Your task to perform on an android device: find which apps use the phone's location Image 0: 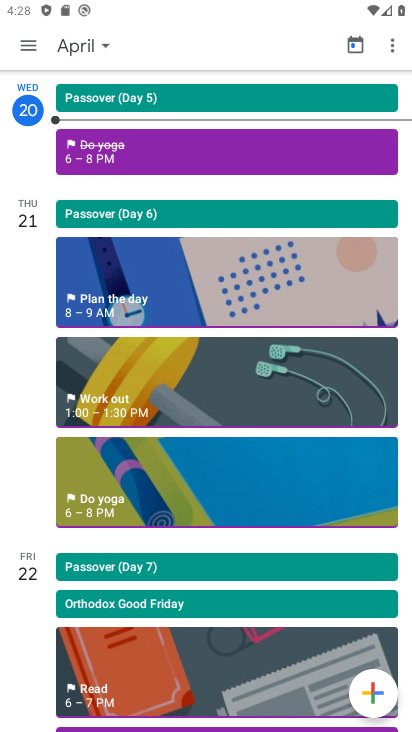
Step 0: press home button
Your task to perform on an android device: find which apps use the phone's location Image 1: 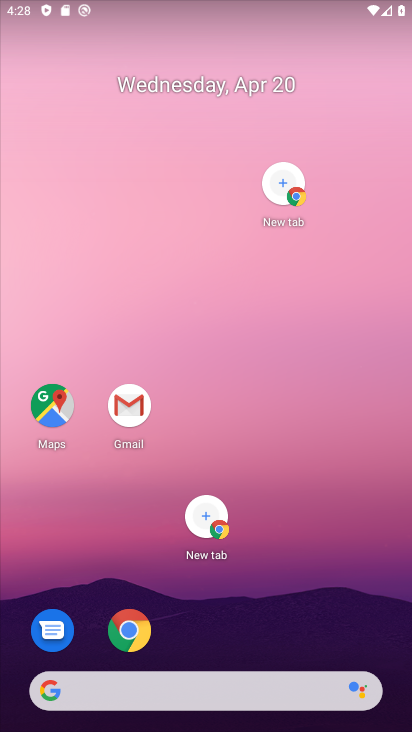
Step 1: drag from (271, 694) to (160, 257)
Your task to perform on an android device: find which apps use the phone's location Image 2: 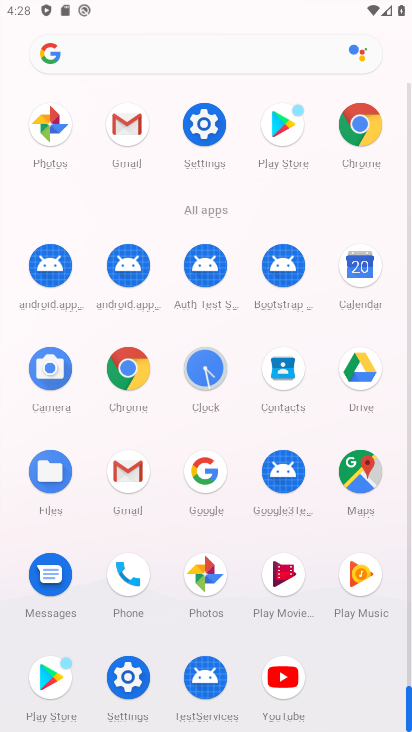
Step 2: click (196, 135)
Your task to perform on an android device: find which apps use the phone's location Image 3: 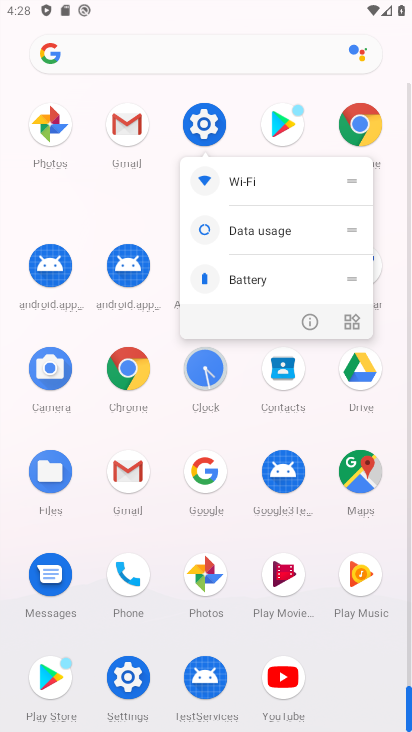
Step 3: click (209, 126)
Your task to perform on an android device: find which apps use the phone's location Image 4: 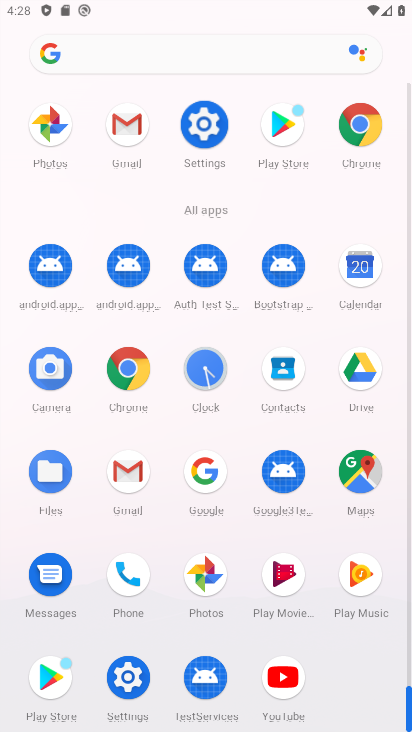
Step 4: click (209, 126)
Your task to perform on an android device: find which apps use the phone's location Image 5: 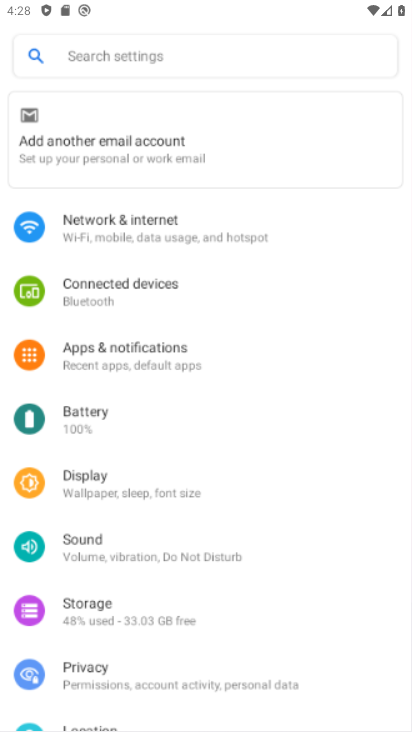
Step 5: click (208, 127)
Your task to perform on an android device: find which apps use the phone's location Image 6: 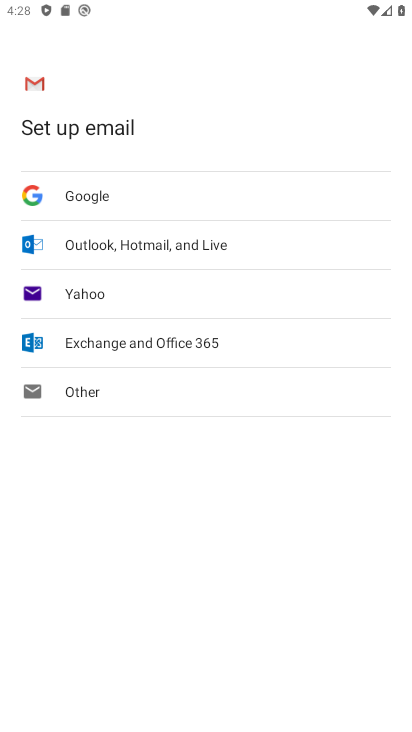
Step 6: press back button
Your task to perform on an android device: find which apps use the phone's location Image 7: 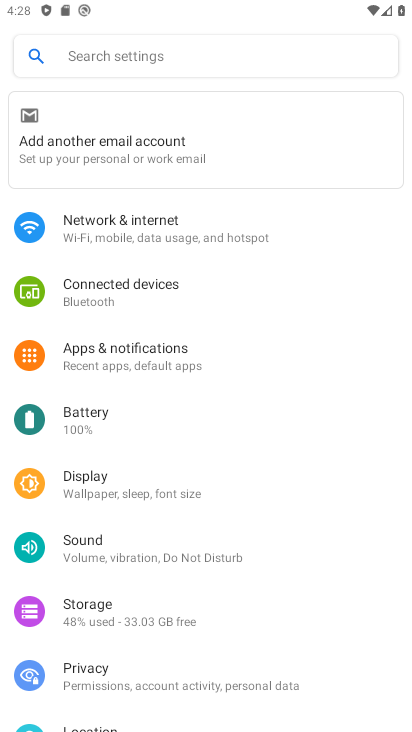
Step 7: drag from (189, 555) to (113, 220)
Your task to perform on an android device: find which apps use the phone's location Image 8: 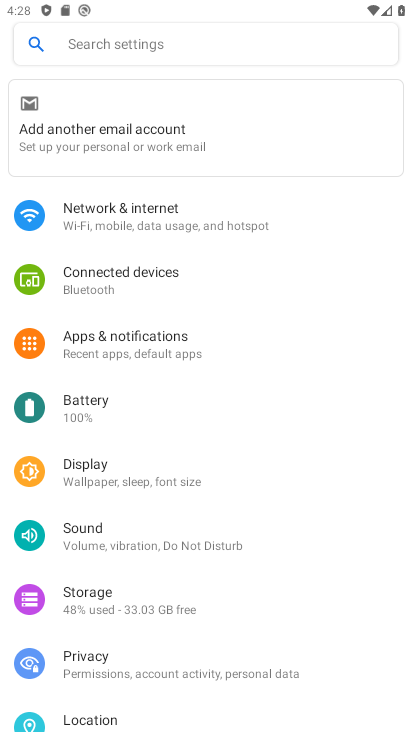
Step 8: drag from (158, 591) to (228, 114)
Your task to perform on an android device: find which apps use the phone's location Image 9: 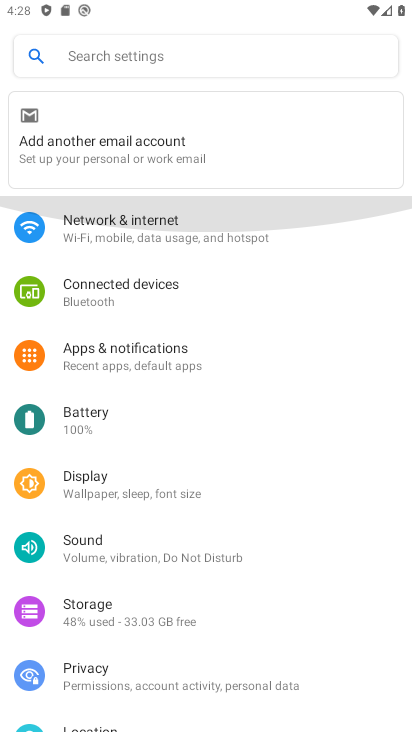
Step 9: drag from (273, 109) to (275, 43)
Your task to perform on an android device: find which apps use the phone's location Image 10: 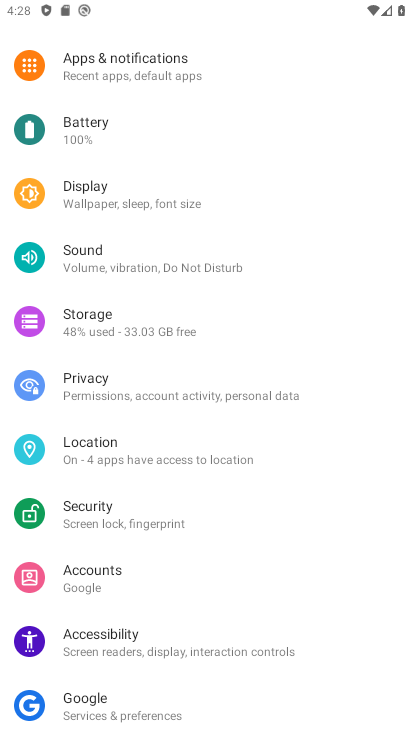
Step 10: click (106, 456)
Your task to perform on an android device: find which apps use the phone's location Image 11: 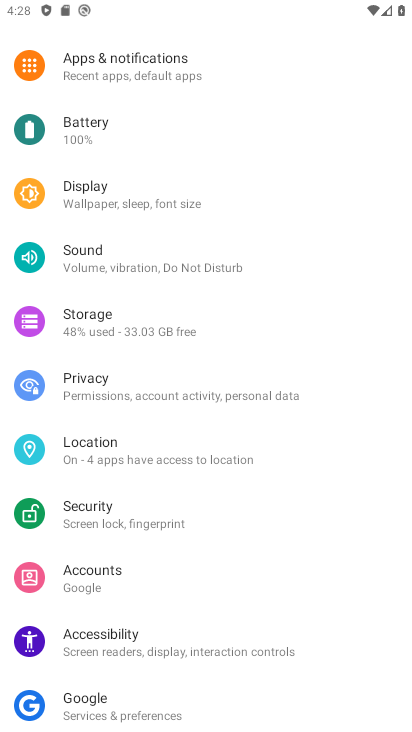
Step 11: click (106, 456)
Your task to perform on an android device: find which apps use the phone's location Image 12: 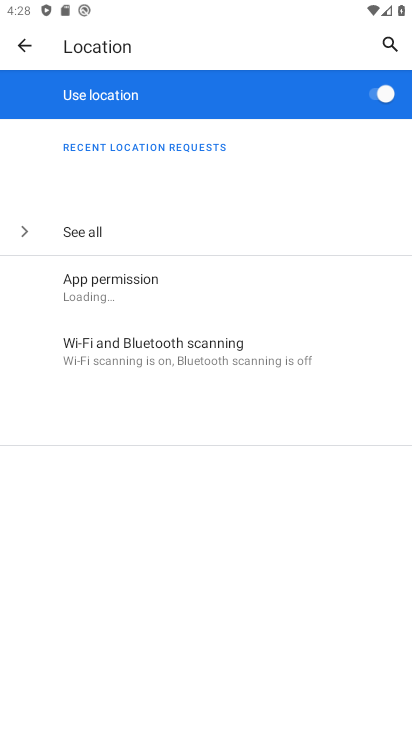
Step 12: click (121, 445)
Your task to perform on an android device: find which apps use the phone's location Image 13: 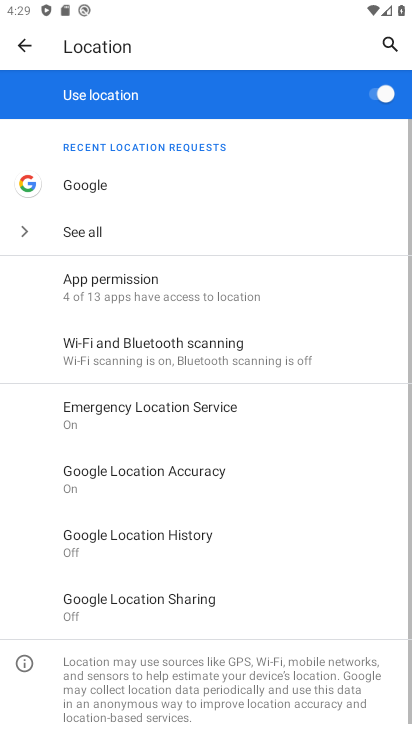
Step 13: click (81, 294)
Your task to perform on an android device: find which apps use the phone's location Image 14: 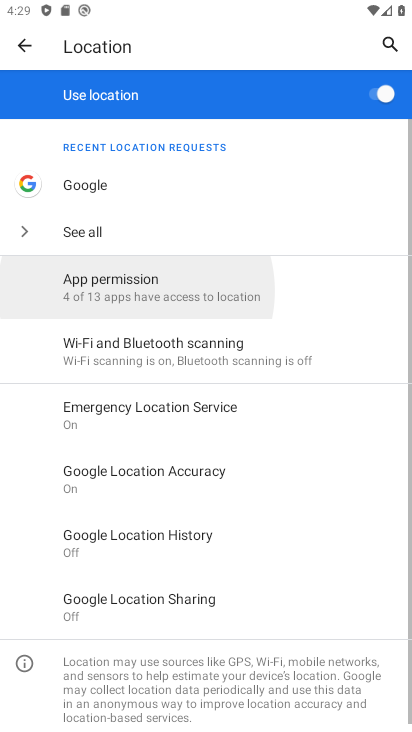
Step 14: click (81, 294)
Your task to perform on an android device: find which apps use the phone's location Image 15: 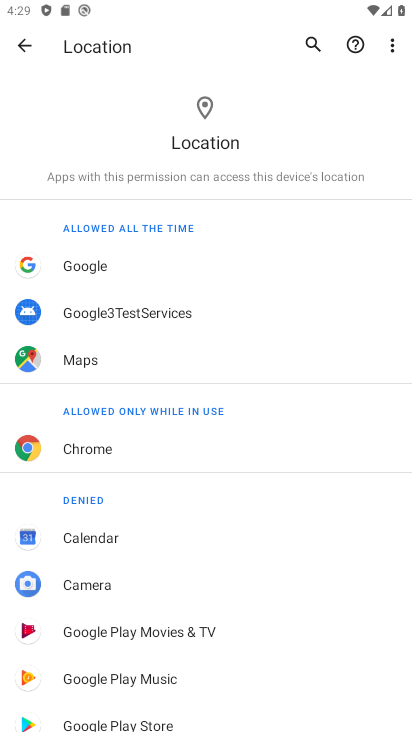
Step 15: task complete